Your task to perform on an android device: Go to wifi settings Image 0: 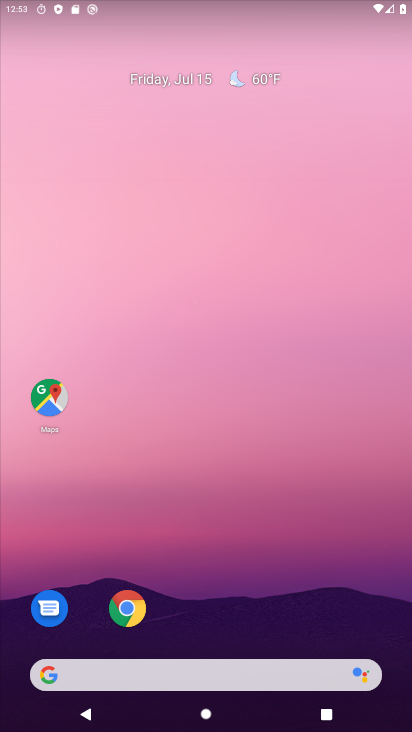
Step 0: press home button
Your task to perform on an android device: Go to wifi settings Image 1: 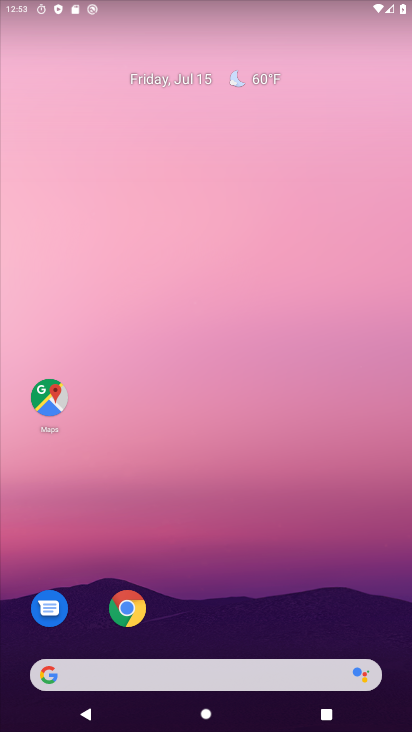
Step 1: click (372, 8)
Your task to perform on an android device: Go to wifi settings Image 2: 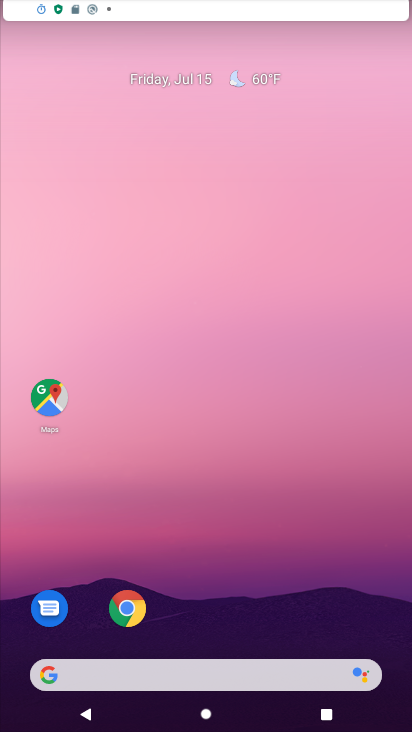
Step 2: click (372, 8)
Your task to perform on an android device: Go to wifi settings Image 3: 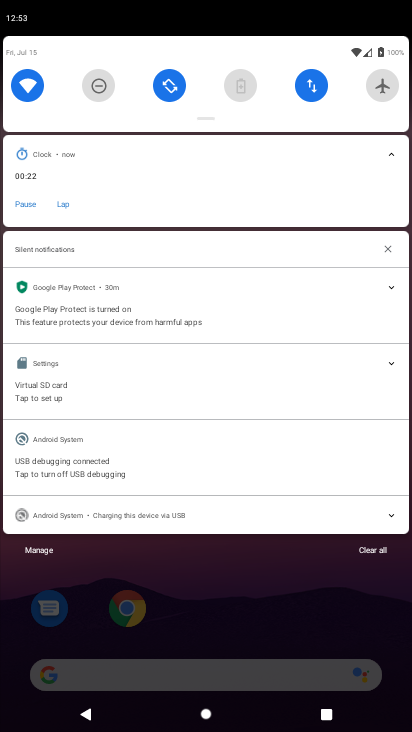
Step 3: click (26, 89)
Your task to perform on an android device: Go to wifi settings Image 4: 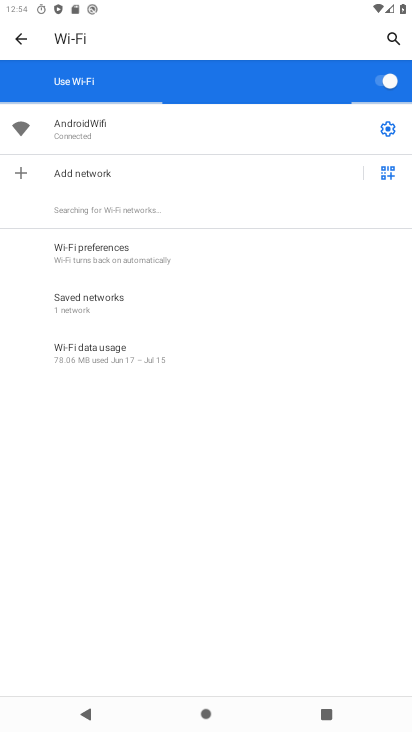
Step 4: task complete